Your task to perform on an android device: delete location history Image 0: 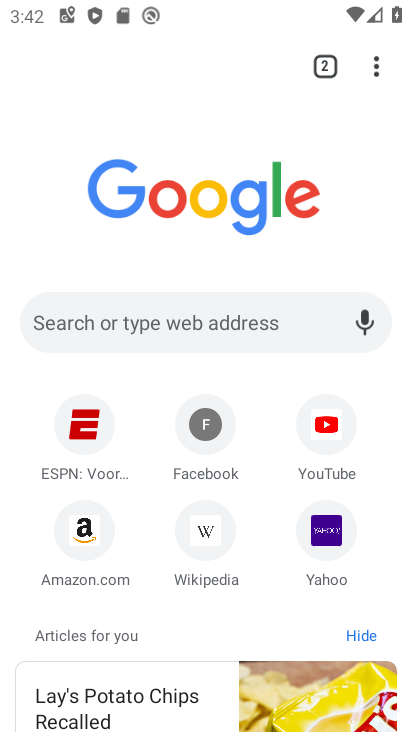
Step 0: press home button
Your task to perform on an android device: delete location history Image 1: 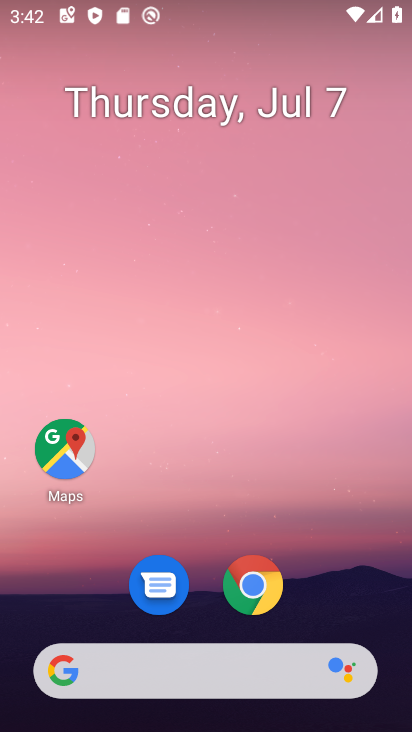
Step 1: drag from (245, 503) to (250, 8)
Your task to perform on an android device: delete location history Image 2: 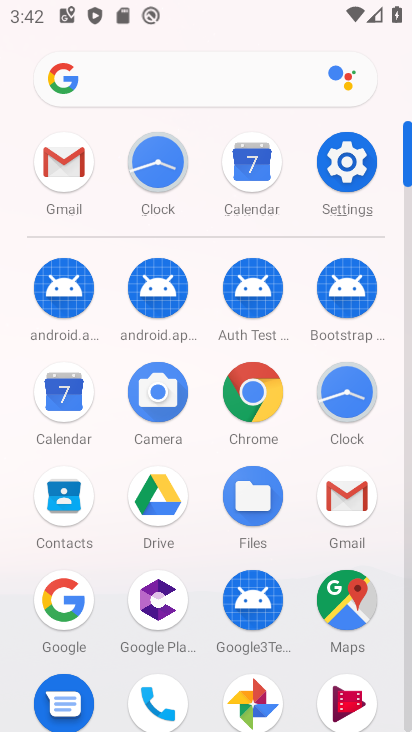
Step 2: click (333, 598)
Your task to perform on an android device: delete location history Image 3: 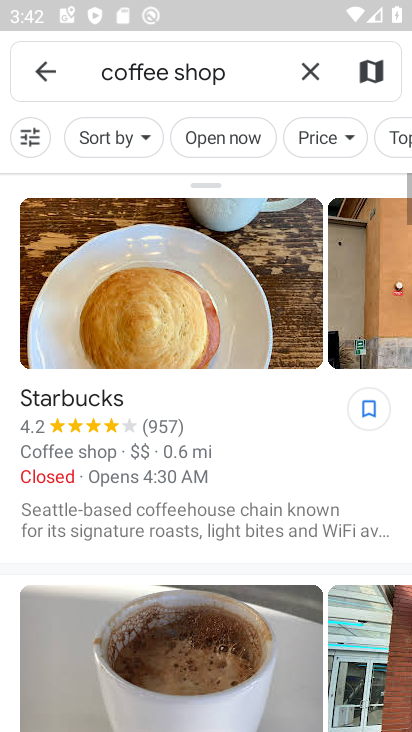
Step 3: click (50, 63)
Your task to perform on an android device: delete location history Image 4: 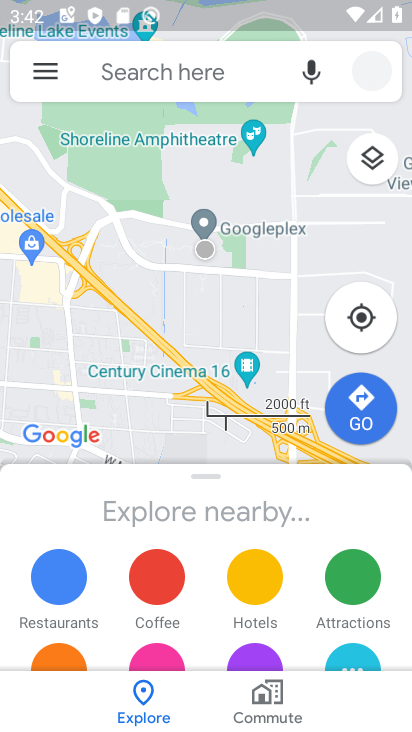
Step 4: click (46, 72)
Your task to perform on an android device: delete location history Image 5: 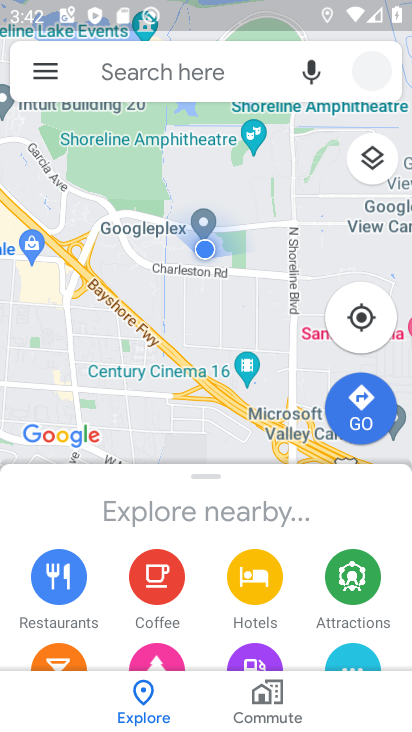
Step 5: click (46, 72)
Your task to perform on an android device: delete location history Image 6: 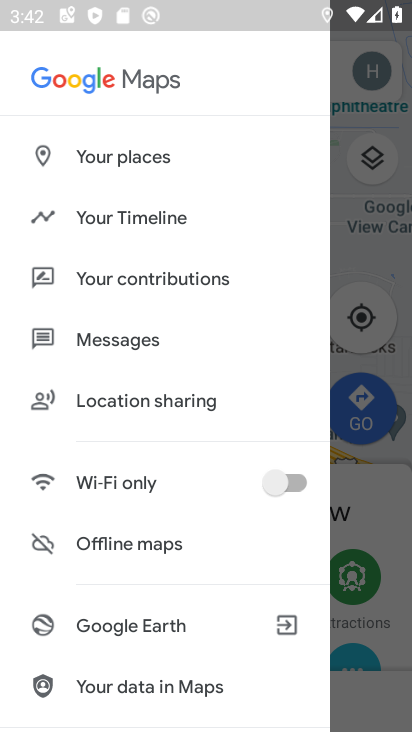
Step 6: click (112, 202)
Your task to perform on an android device: delete location history Image 7: 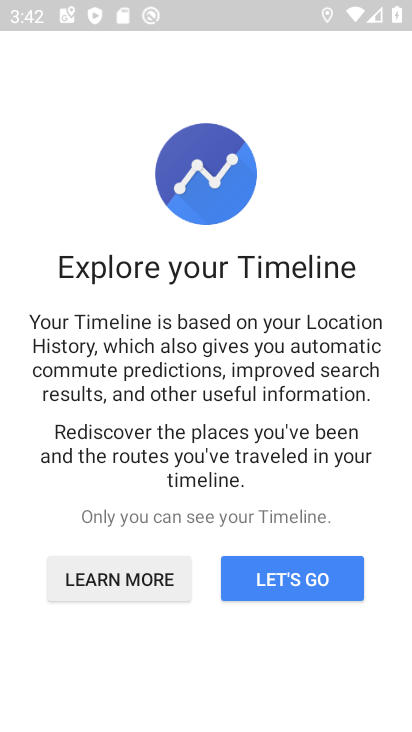
Step 7: click (278, 581)
Your task to perform on an android device: delete location history Image 8: 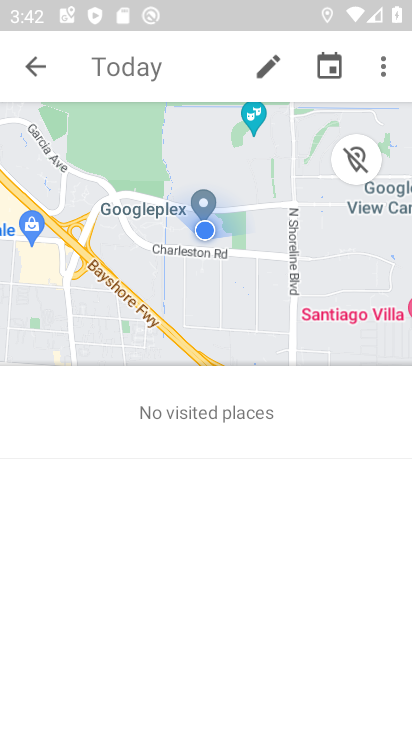
Step 8: click (390, 80)
Your task to perform on an android device: delete location history Image 9: 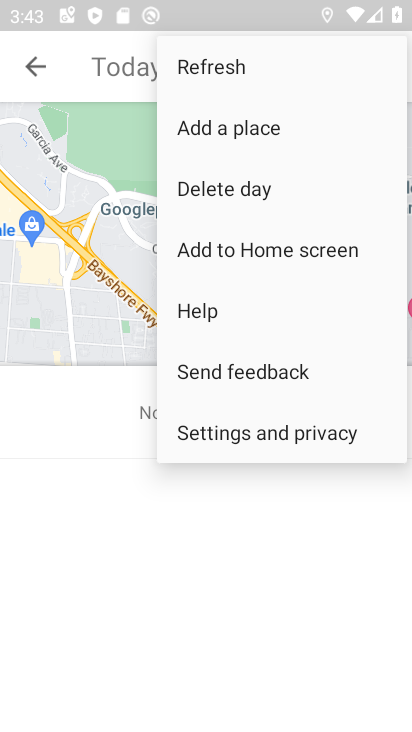
Step 9: click (332, 434)
Your task to perform on an android device: delete location history Image 10: 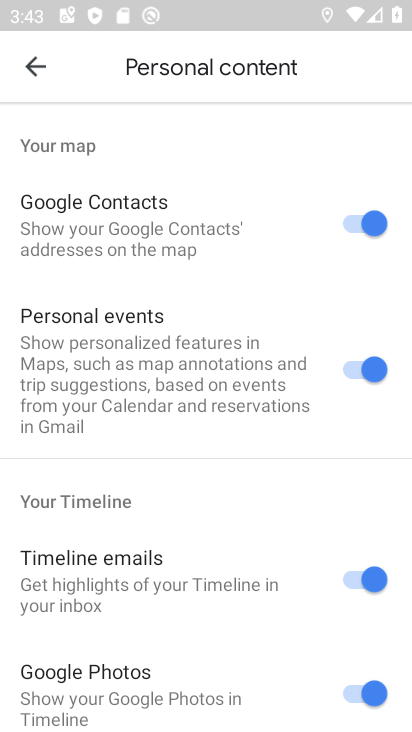
Step 10: drag from (232, 552) to (286, 249)
Your task to perform on an android device: delete location history Image 11: 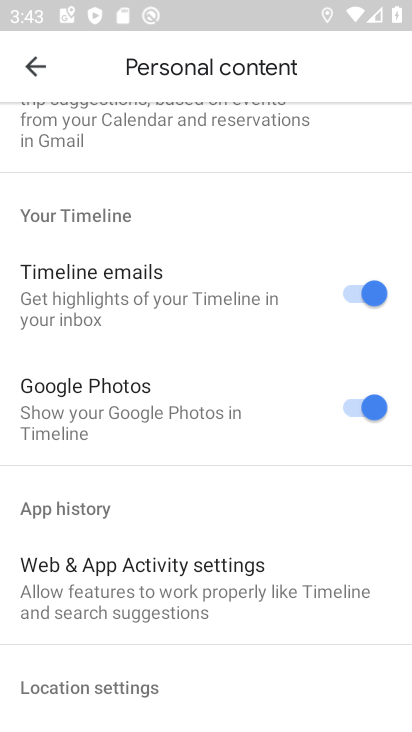
Step 11: drag from (237, 522) to (266, 198)
Your task to perform on an android device: delete location history Image 12: 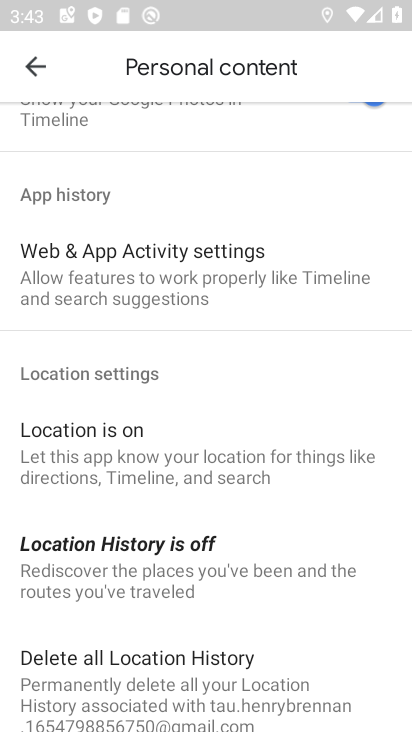
Step 12: drag from (221, 553) to (234, 223)
Your task to perform on an android device: delete location history Image 13: 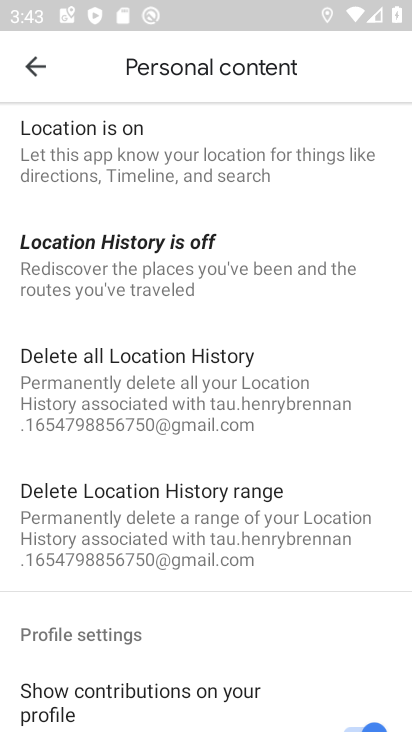
Step 13: click (283, 362)
Your task to perform on an android device: delete location history Image 14: 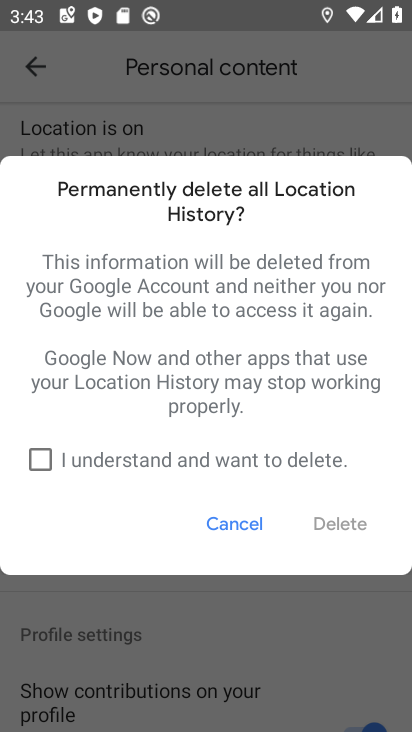
Step 14: click (37, 461)
Your task to perform on an android device: delete location history Image 15: 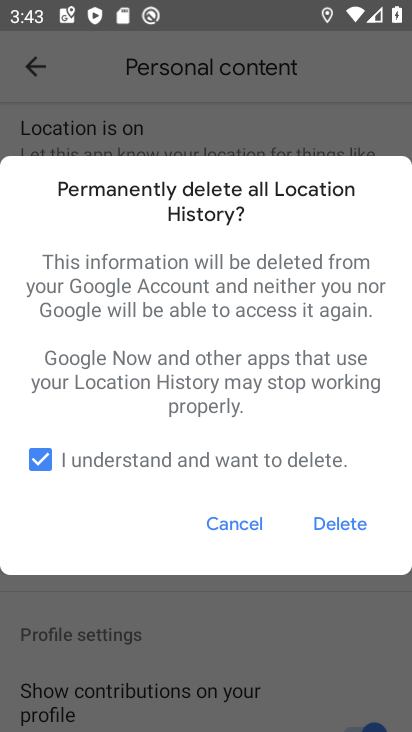
Step 15: click (323, 517)
Your task to perform on an android device: delete location history Image 16: 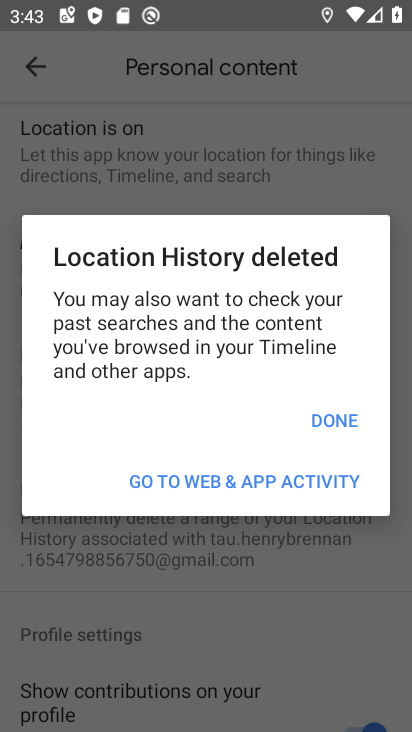
Step 16: click (333, 413)
Your task to perform on an android device: delete location history Image 17: 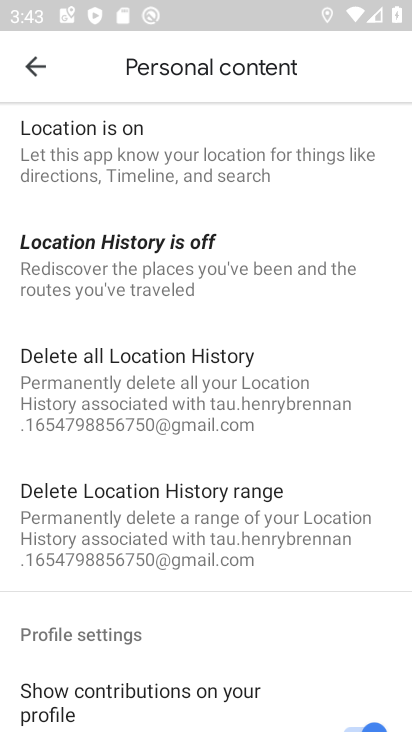
Step 17: click (282, 388)
Your task to perform on an android device: delete location history Image 18: 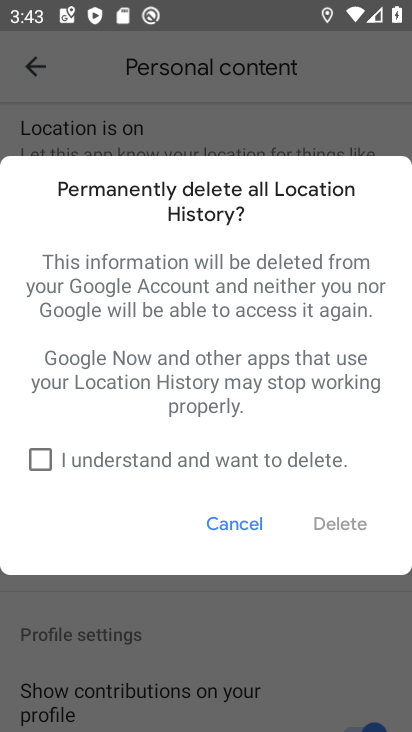
Step 18: click (52, 461)
Your task to perform on an android device: delete location history Image 19: 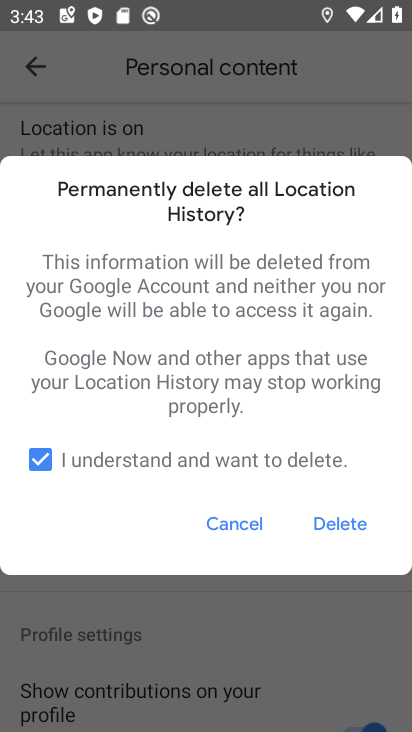
Step 19: click (335, 519)
Your task to perform on an android device: delete location history Image 20: 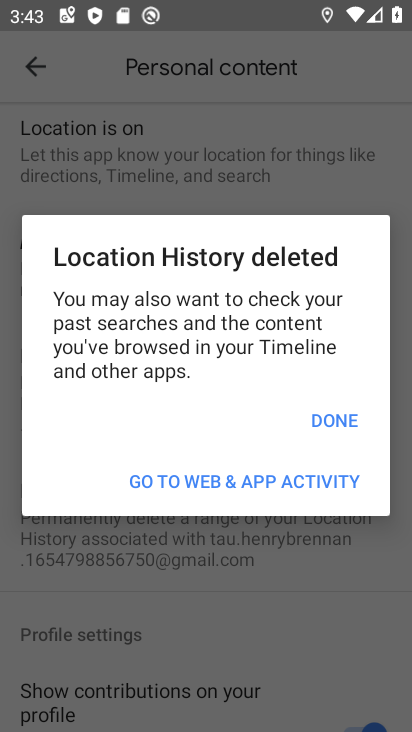
Step 20: click (342, 417)
Your task to perform on an android device: delete location history Image 21: 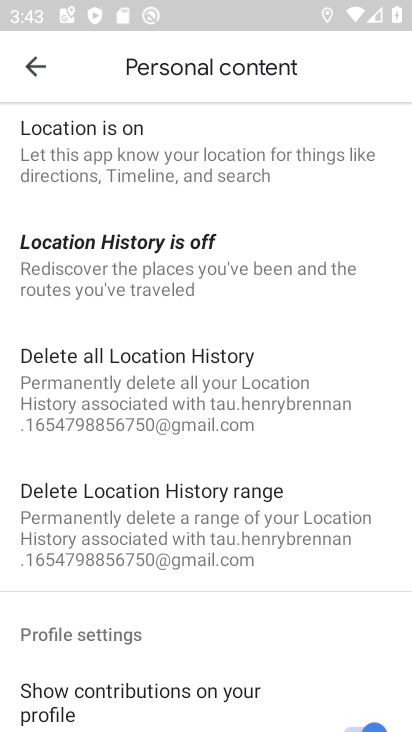
Step 21: task complete